Your task to perform on an android device: Go to Maps Image 0: 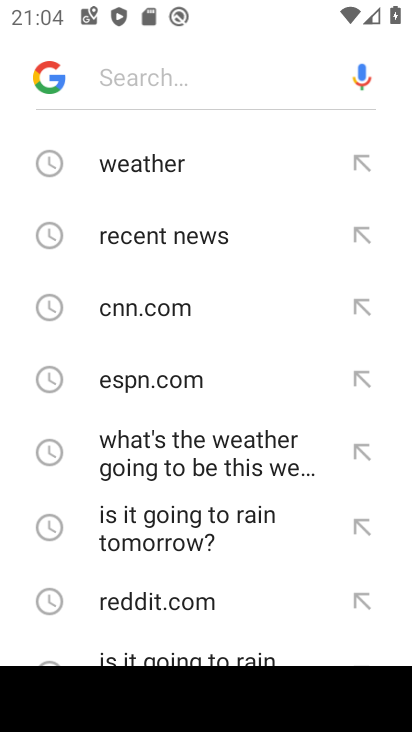
Step 0: press home button
Your task to perform on an android device: Go to Maps Image 1: 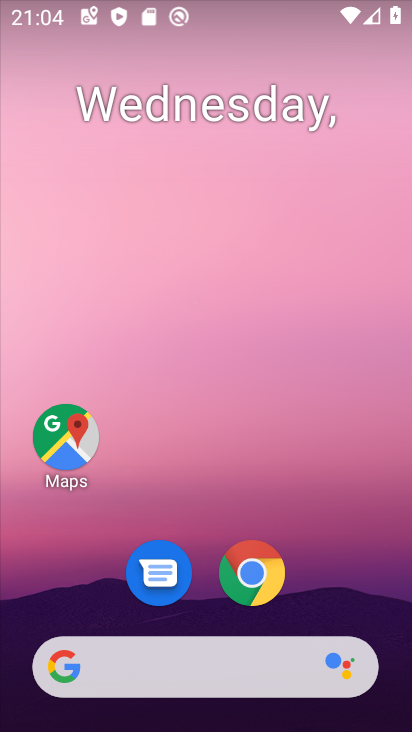
Step 1: click (74, 429)
Your task to perform on an android device: Go to Maps Image 2: 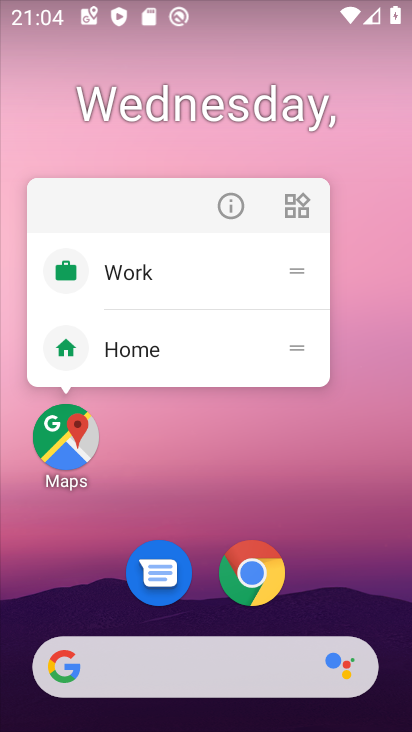
Step 2: click (74, 429)
Your task to perform on an android device: Go to Maps Image 3: 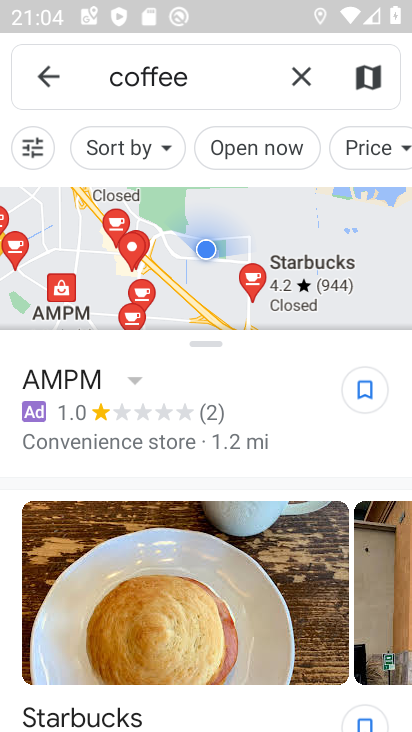
Step 3: task complete